Your task to perform on an android device: clear all cookies in the chrome app Image 0: 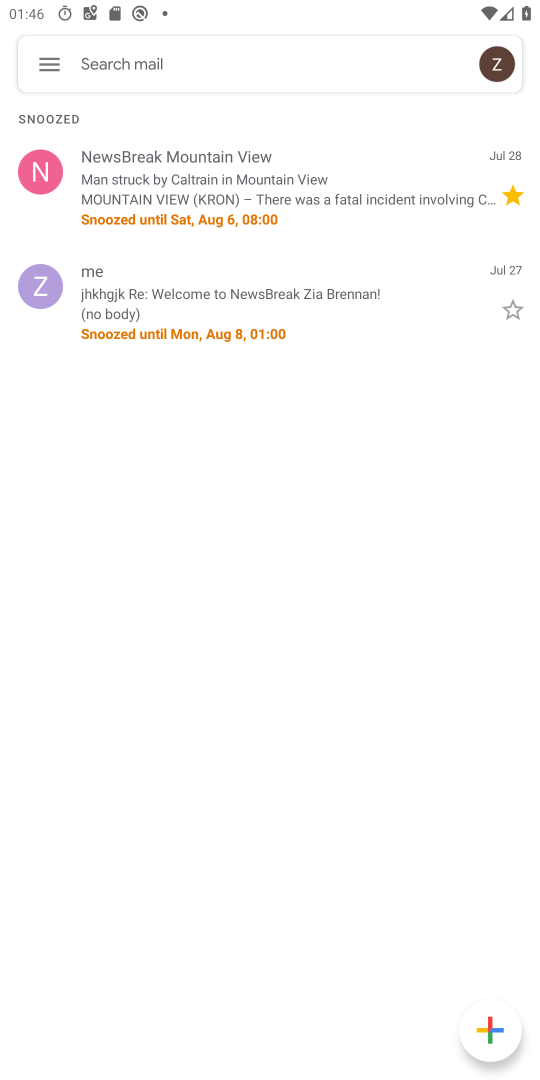
Step 0: press home button
Your task to perform on an android device: clear all cookies in the chrome app Image 1: 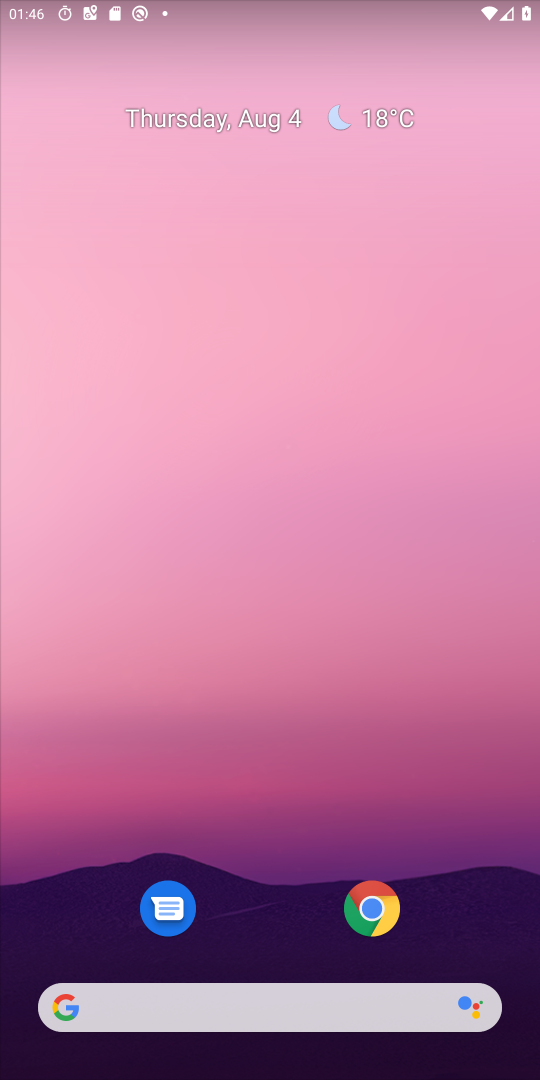
Step 1: drag from (208, 1049) to (253, 195)
Your task to perform on an android device: clear all cookies in the chrome app Image 2: 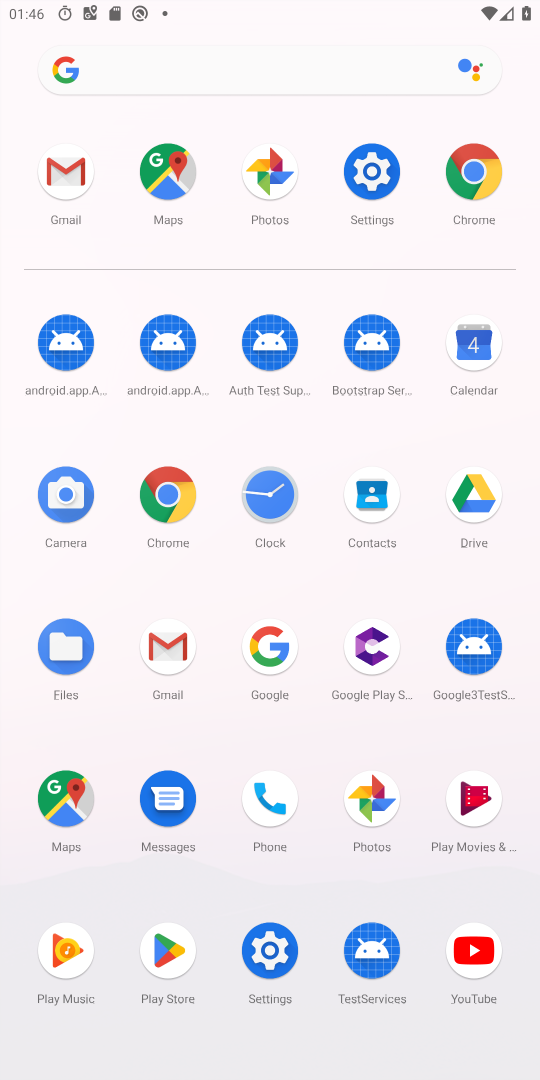
Step 2: click (475, 178)
Your task to perform on an android device: clear all cookies in the chrome app Image 3: 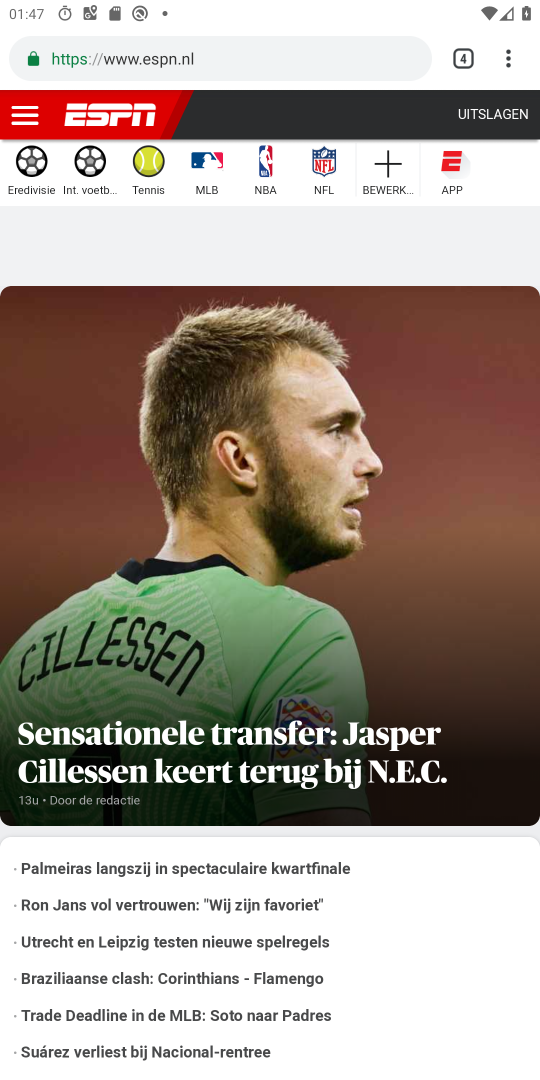
Step 3: click (500, 60)
Your task to perform on an android device: clear all cookies in the chrome app Image 4: 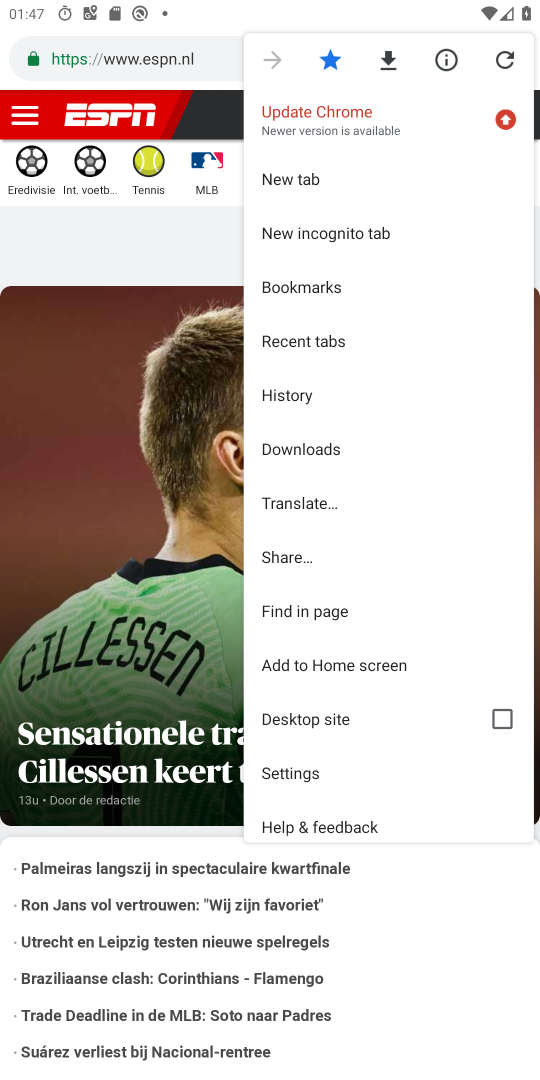
Step 4: click (285, 411)
Your task to perform on an android device: clear all cookies in the chrome app Image 5: 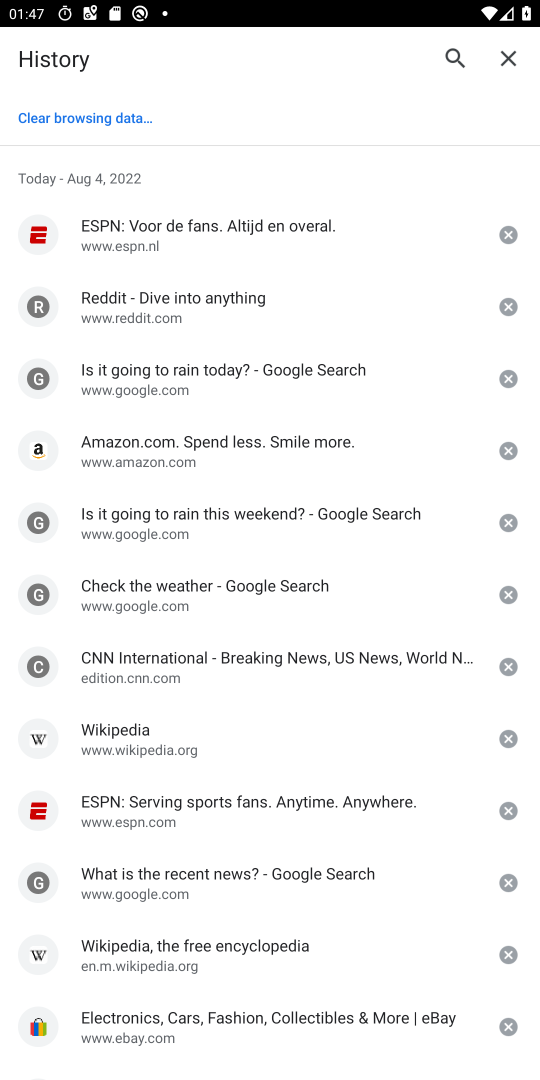
Step 5: click (71, 122)
Your task to perform on an android device: clear all cookies in the chrome app Image 6: 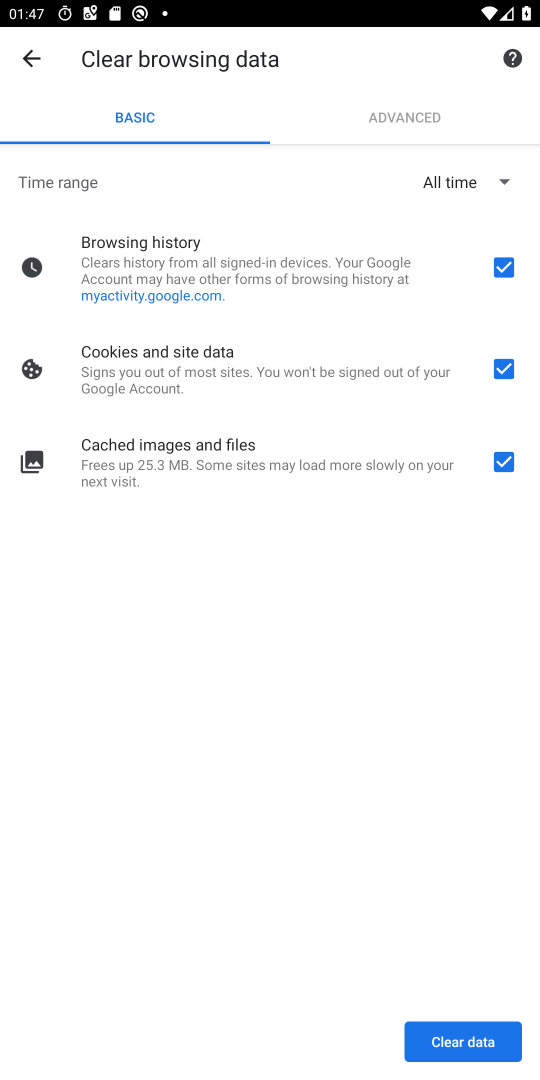
Step 6: click (473, 1039)
Your task to perform on an android device: clear all cookies in the chrome app Image 7: 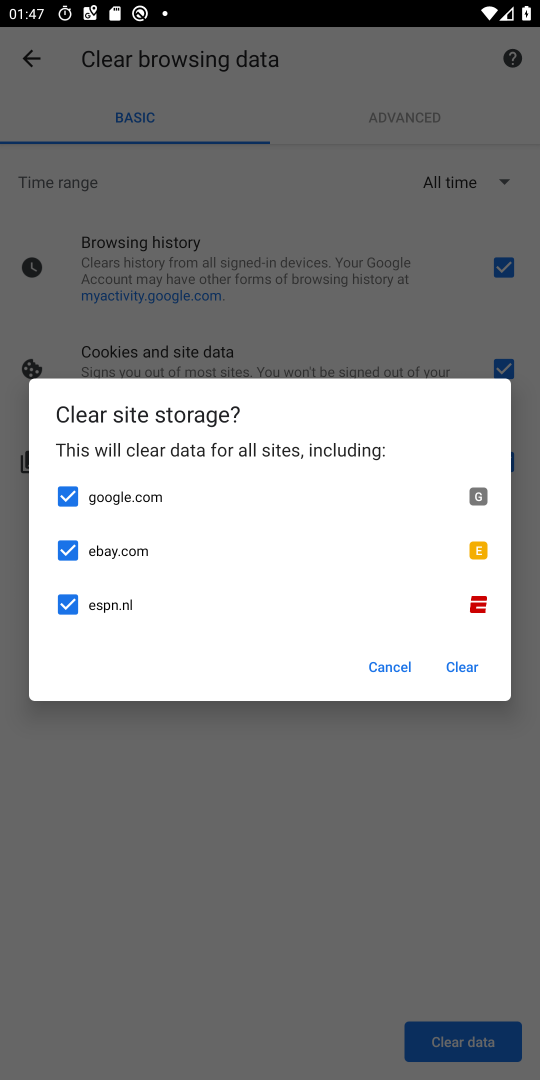
Step 7: click (448, 668)
Your task to perform on an android device: clear all cookies in the chrome app Image 8: 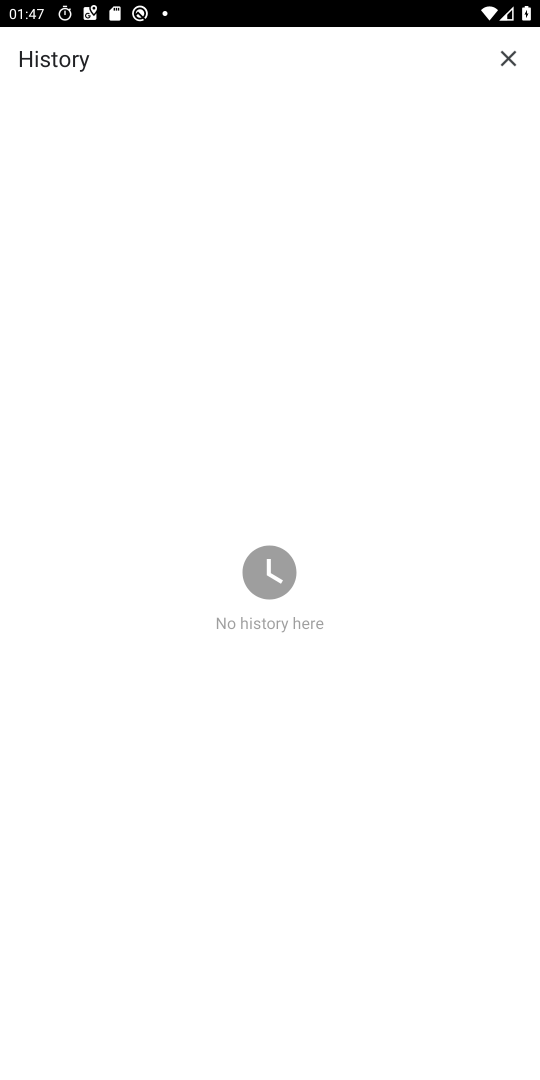
Step 8: task complete